Your task to perform on an android device: Open accessibility settings Image 0: 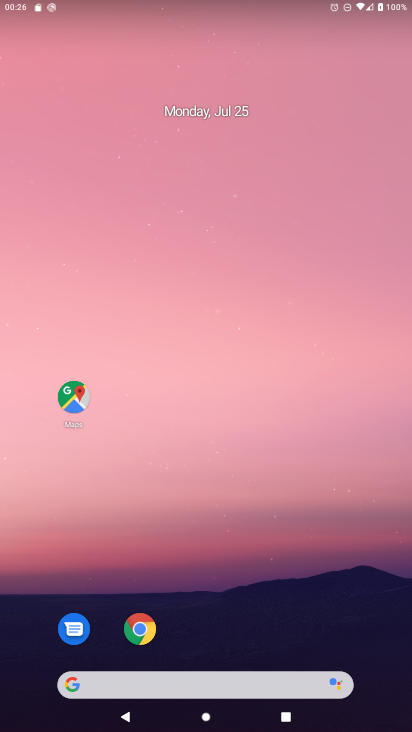
Step 0: drag from (183, 653) to (230, 211)
Your task to perform on an android device: Open accessibility settings Image 1: 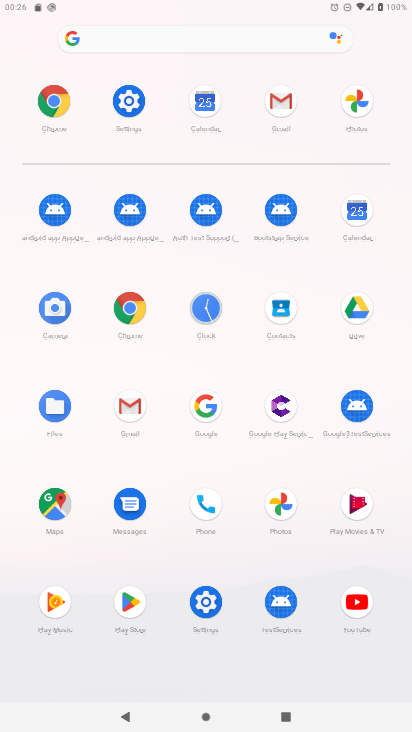
Step 1: click (203, 616)
Your task to perform on an android device: Open accessibility settings Image 2: 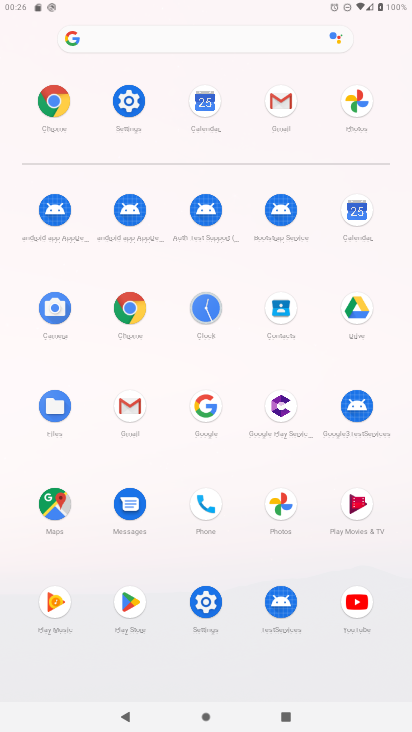
Step 2: click (202, 615)
Your task to perform on an android device: Open accessibility settings Image 3: 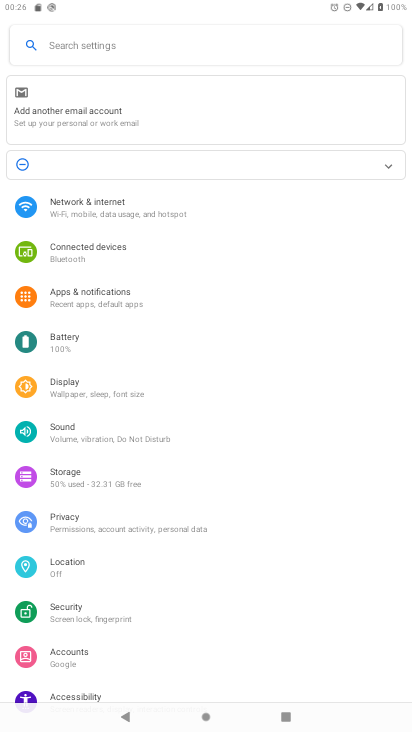
Step 3: drag from (133, 627) to (198, 129)
Your task to perform on an android device: Open accessibility settings Image 4: 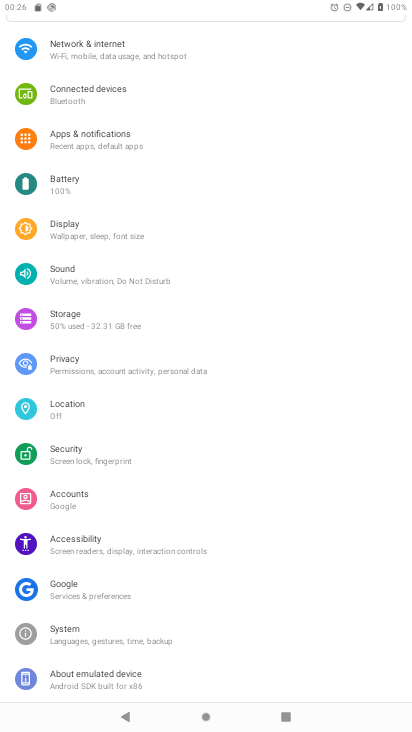
Step 4: click (87, 546)
Your task to perform on an android device: Open accessibility settings Image 5: 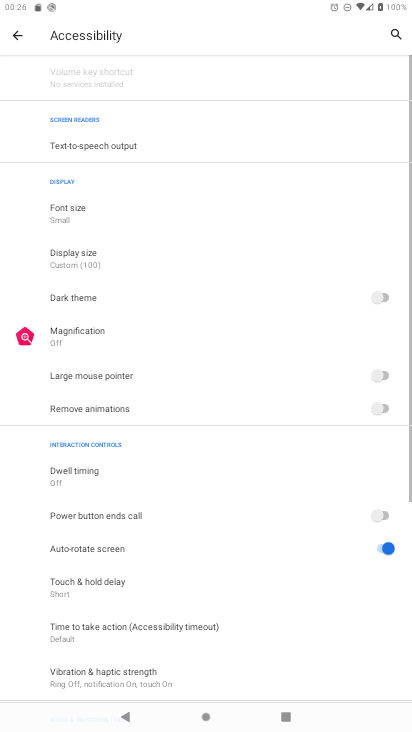
Step 5: task complete